Your task to perform on an android device: Open calendar and show me the second week of next month Image 0: 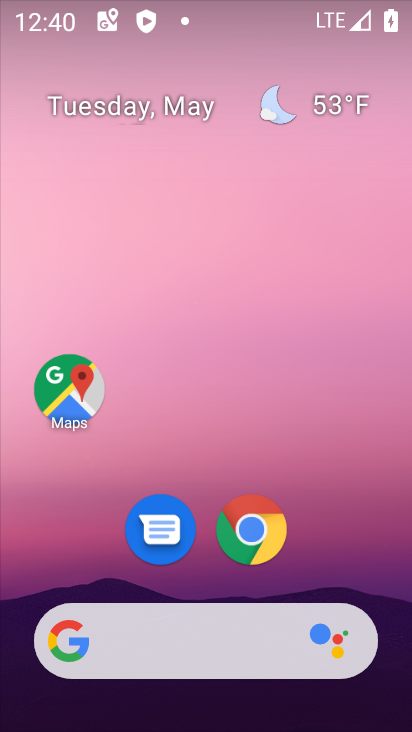
Step 0: drag from (195, 720) to (220, 201)
Your task to perform on an android device: Open calendar and show me the second week of next month Image 1: 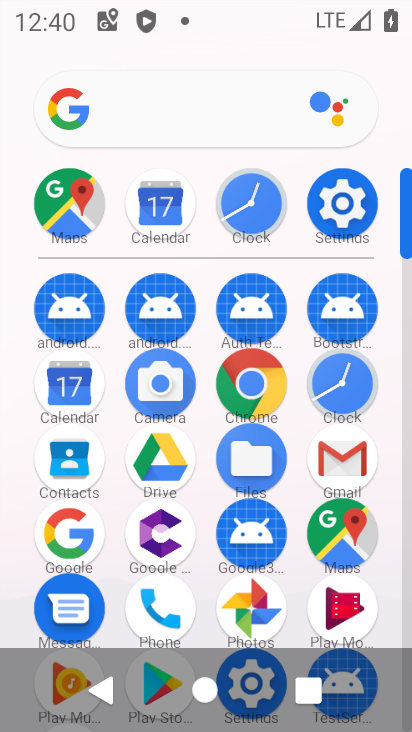
Step 1: click (75, 383)
Your task to perform on an android device: Open calendar and show me the second week of next month Image 2: 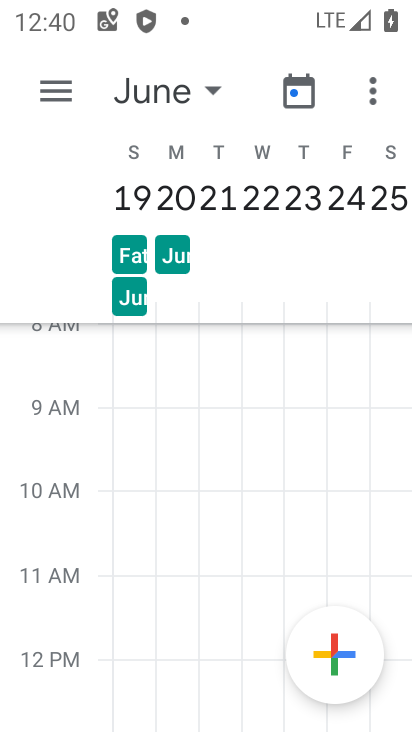
Step 2: click (206, 90)
Your task to perform on an android device: Open calendar and show me the second week of next month Image 3: 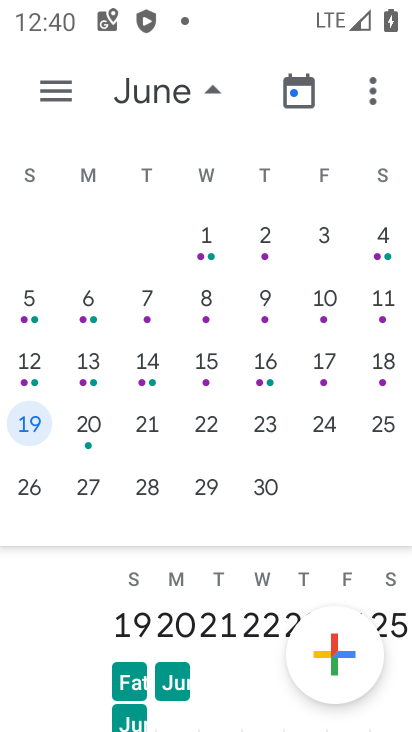
Step 3: click (90, 358)
Your task to perform on an android device: Open calendar and show me the second week of next month Image 4: 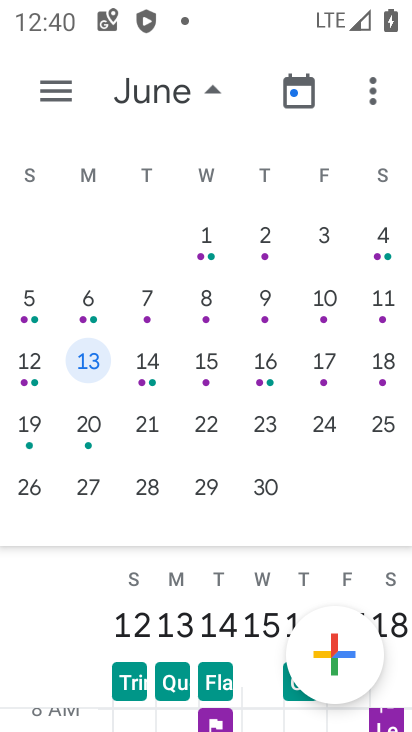
Step 4: click (218, 85)
Your task to perform on an android device: Open calendar and show me the second week of next month Image 5: 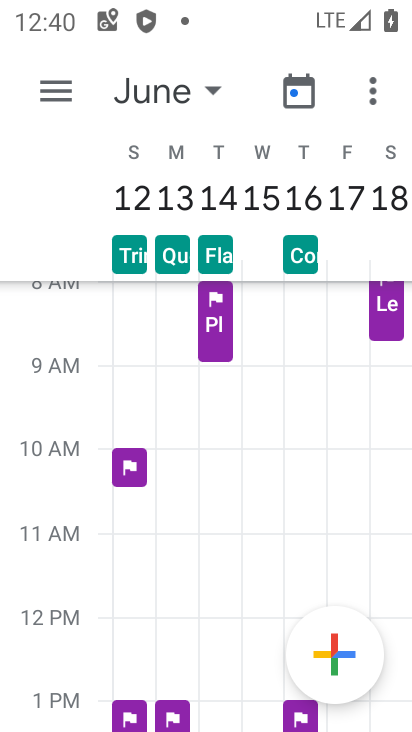
Step 5: task complete